Your task to perform on an android device: Clear the shopping cart on costco. Add "asus zenbook" to the cart on costco, then select checkout. Image 0: 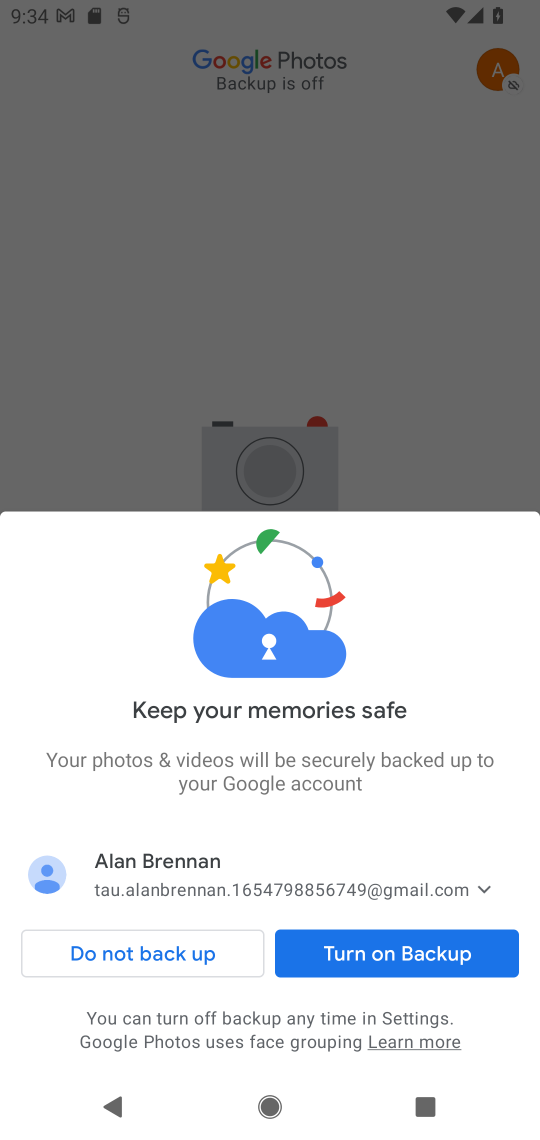
Step 0: press home button
Your task to perform on an android device: Clear the shopping cart on costco. Add "asus zenbook" to the cart on costco, then select checkout. Image 1: 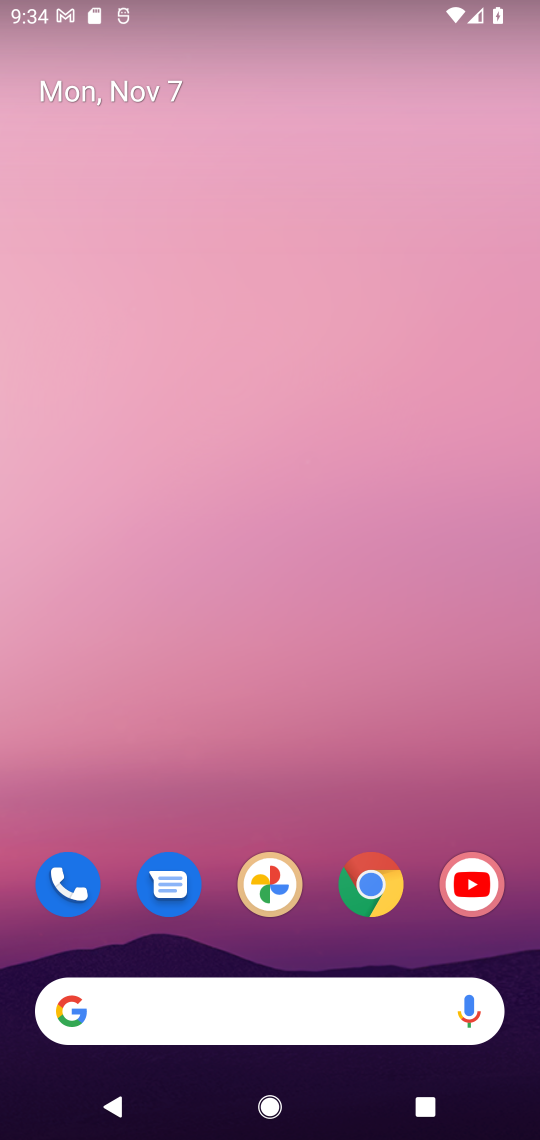
Step 1: click (391, 884)
Your task to perform on an android device: Clear the shopping cart on costco. Add "asus zenbook" to the cart on costco, then select checkout. Image 2: 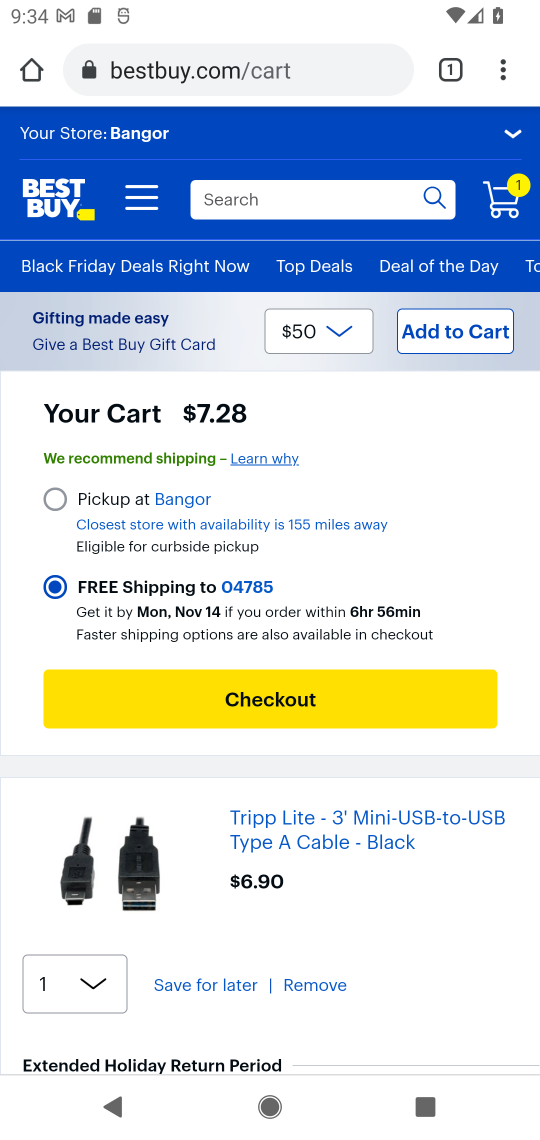
Step 2: click (270, 63)
Your task to perform on an android device: Clear the shopping cart on costco. Add "asus zenbook" to the cart on costco, then select checkout. Image 3: 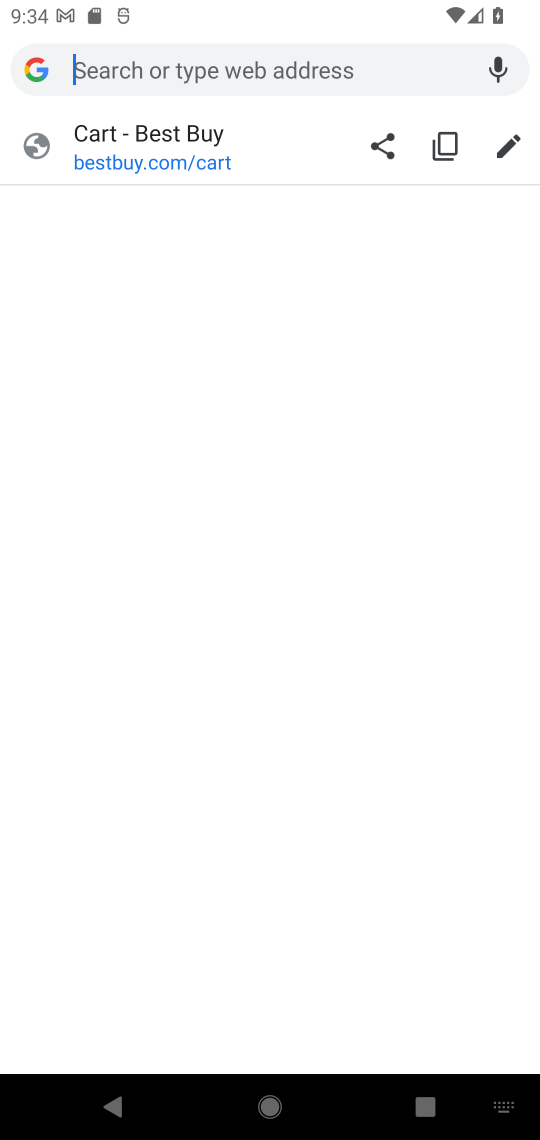
Step 3: type "costco"
Your task to perform on an android device: Clear the shopping cart on costco. Add "asus zenbook" to the cart on costco, then select checkout. Image 4: 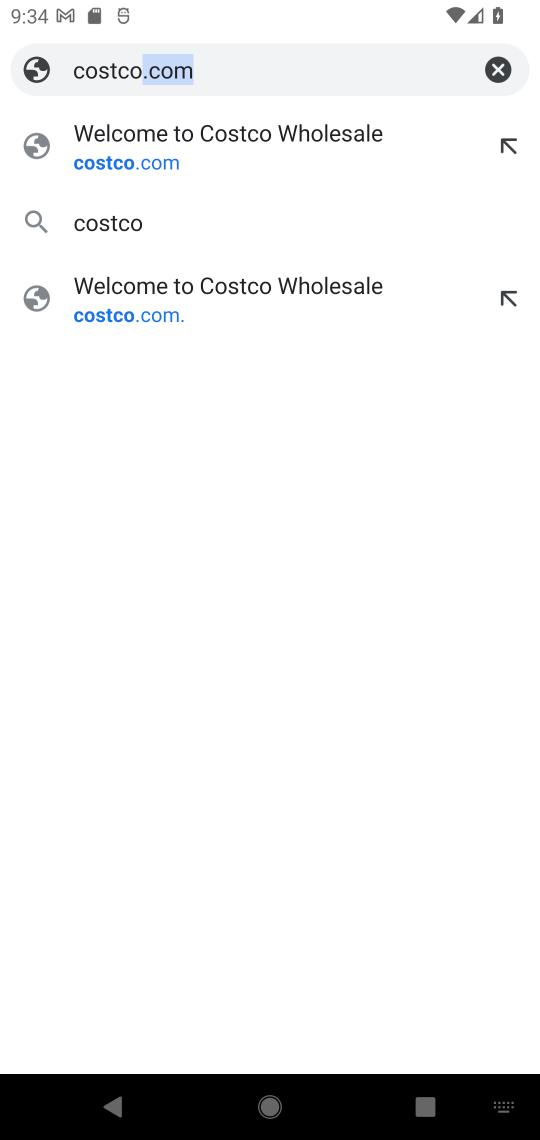
Step 4: click (271, 72)
Your task to perform on an android device: Clear the shopping cart on costco. Add "asus zenbook" to the cart on costco, then select checkout. Image 5: 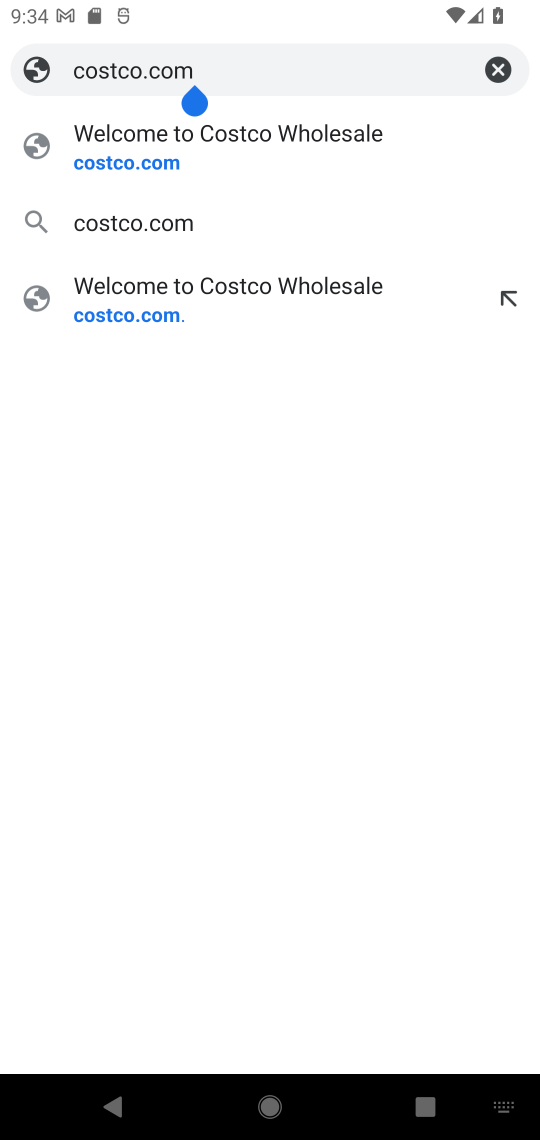
Step 5: click (171, 224)
Your task to perform on an android device: Clear the shopping cart on costco. Add "asus zenbook" to the cart on costco, then select checkout. Image 6: 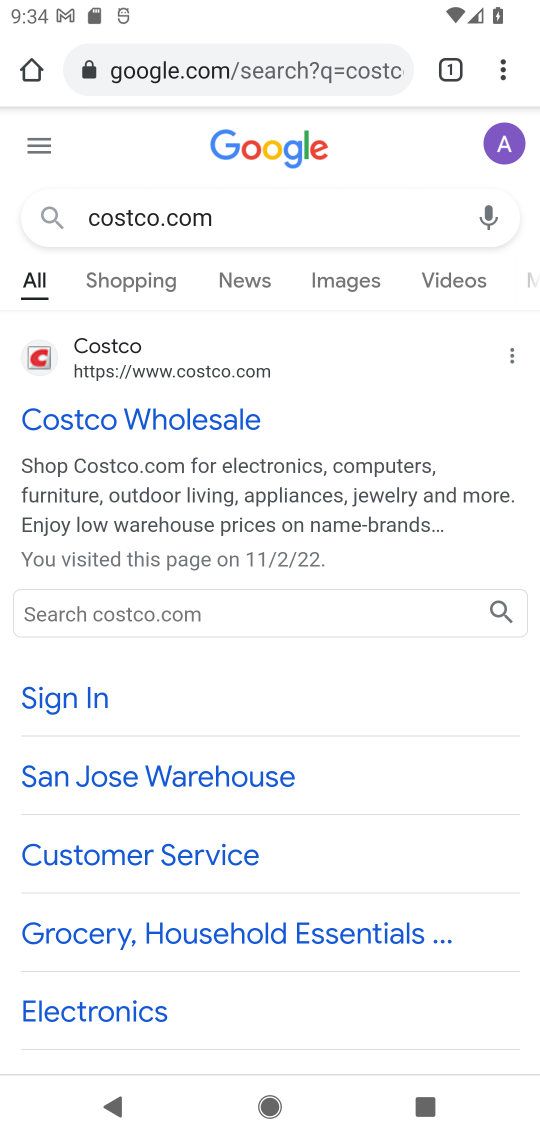
Step 6: click (227, 367)
Your task to perform on an android device: Clear the shopping cart on costco. Add "asus zenbook" to the cart on costco, then select checkout. Image 7: 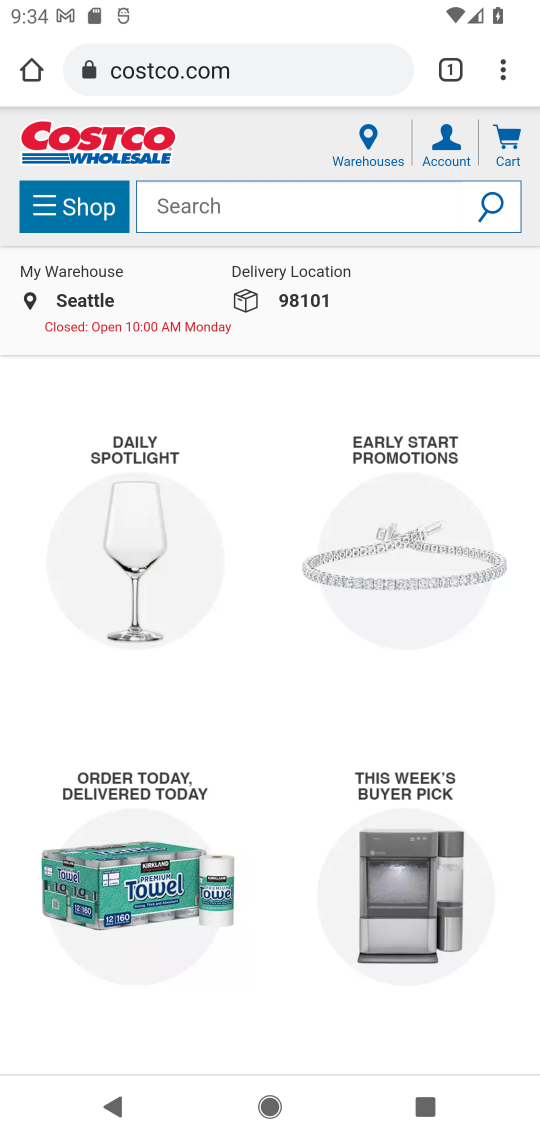
Step 7: click (518, 148)
Your task to perform on an android device: Clear the shopping cart on costco. Add "asus zenbook" to the cart on costco, then select checkout. Image 8: 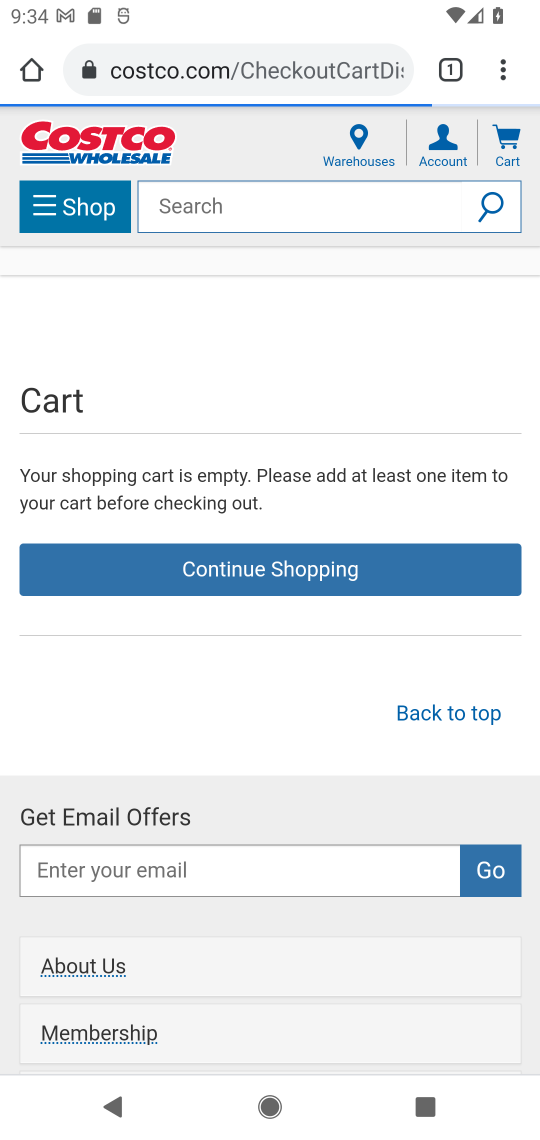
Step 8: click (319, 194)
Your task to perform on an android device: Clear the shopping cart on costco. Add "asus zenbook" to the cart on costco, then select checkout. Image 9: 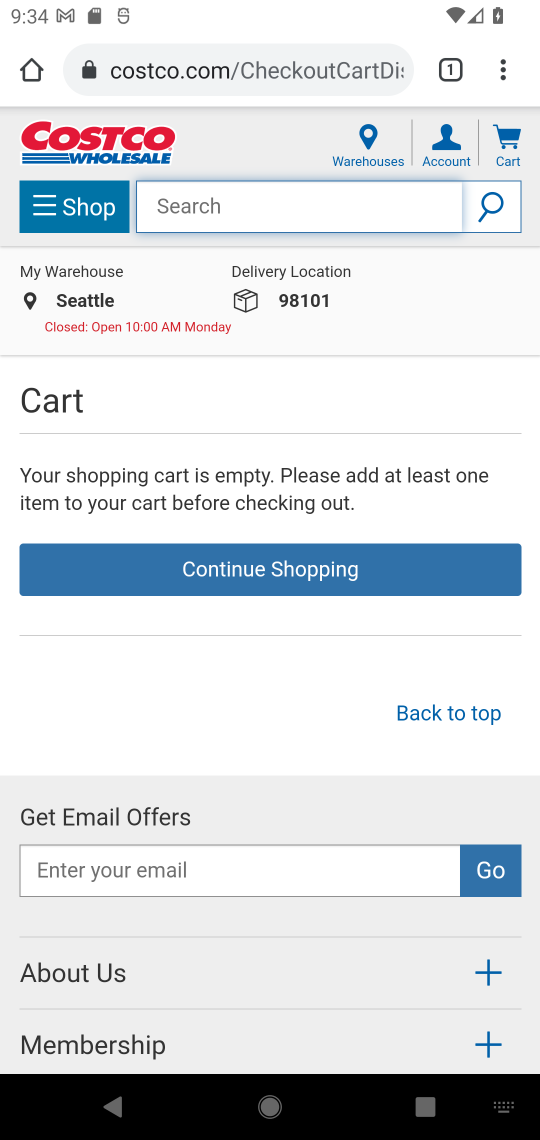
Step 9: type "asus zenbook"
Your task to perform on an android device: Clear the shopping cart on costco. Add "asus zenbook" to the cart on costco, then select checkout. Image 10: 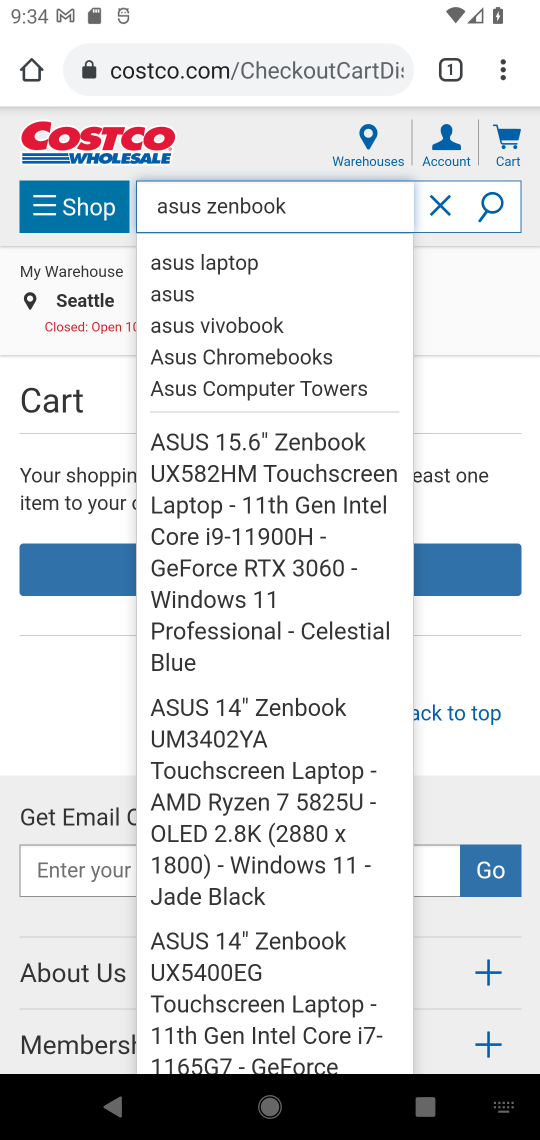
Step 10: click (459, 294)
Your task to perform on an android device: Clear the shopping cart on costco. Add "asus zenbook" to the cart on costco, then select checkout. Image 11: 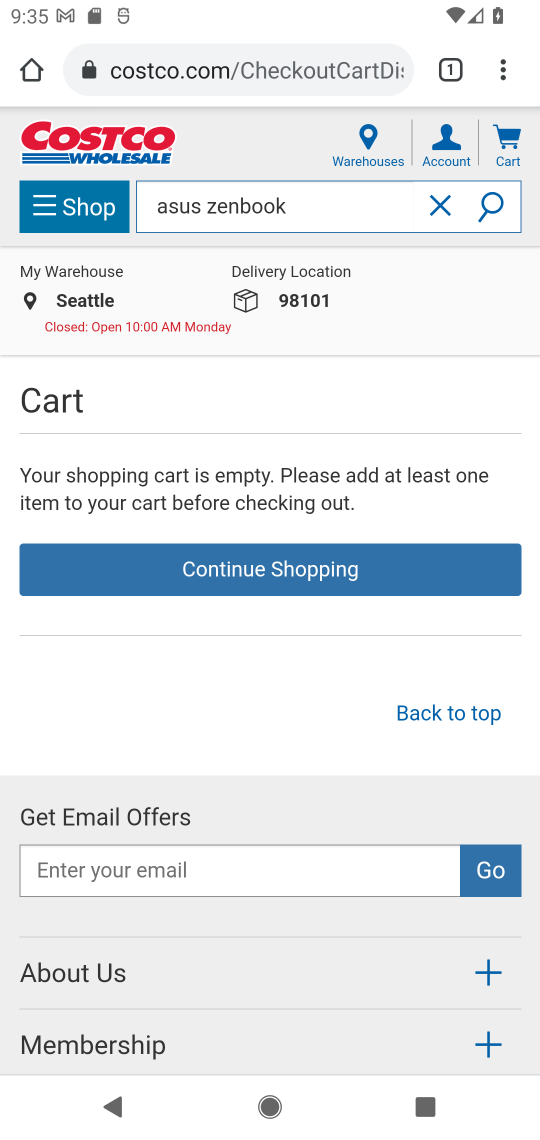
Step 11: task complete